Your task to perform on an android device: show emergency info Image 0: 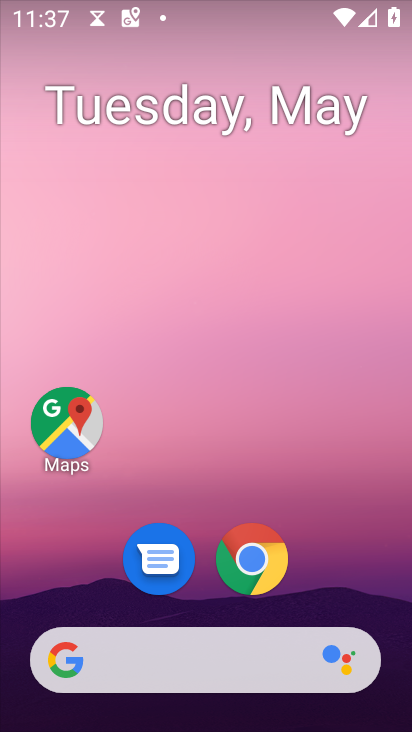
Step 0: drag from (347, 562) to (399, 5)
Your task to perform on an android device: show emergency info Image 1: 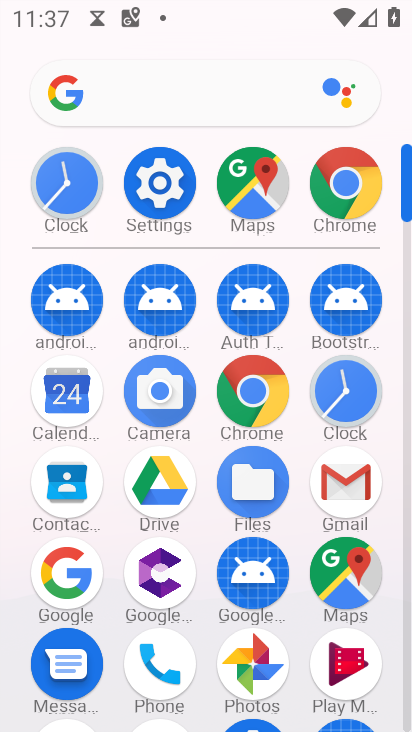
Step 1: click (160, 202)
Your task to perform on an android device: show emergency info Image 2: 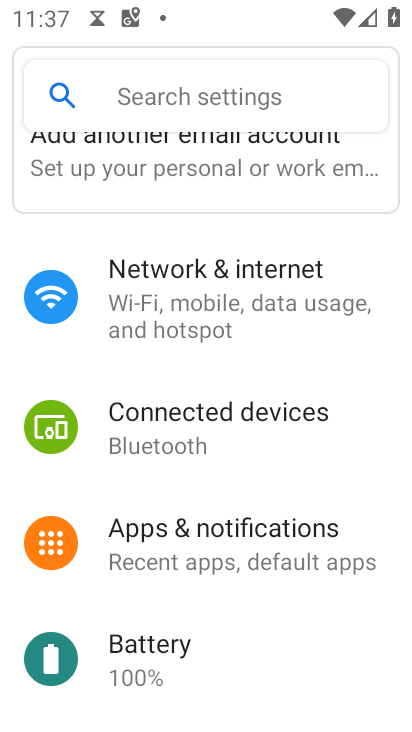
Step 2: drag from (205, 637) to (247, 120)
Your task to perform on an android device: show emergency info Image 3: 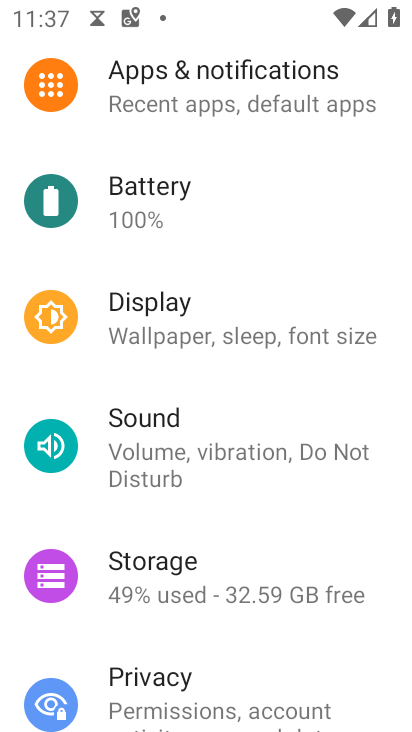
Step 3: drag from (223, 573) to (262, 17)
Your task to perform on an android device: show emergency info Image 4: 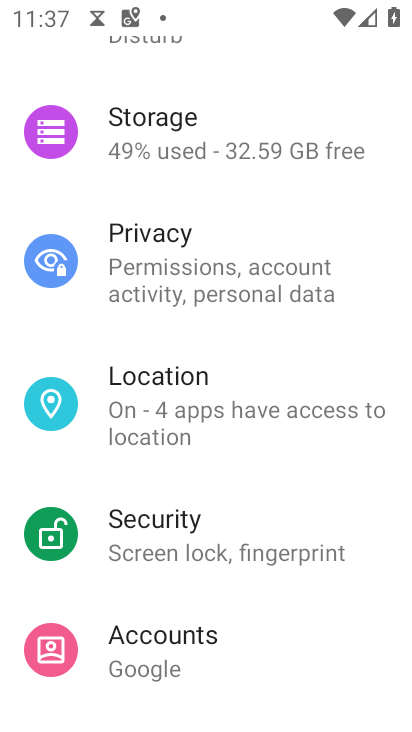
Step 4: drag from (251, 600) to (286, 135)
Your task to perform on an android device: show emergency info Image 5: 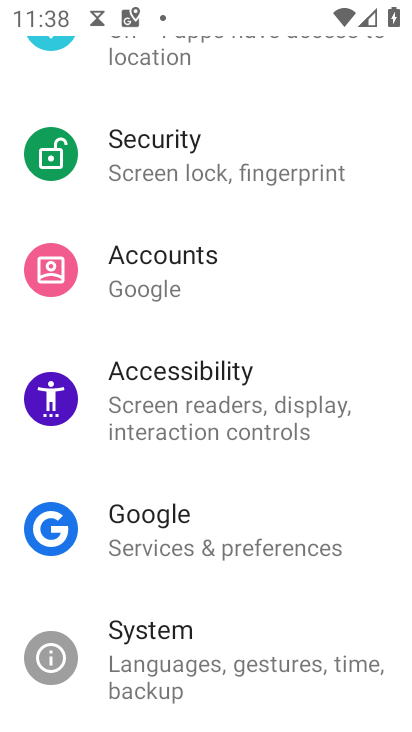
Step 5: drag from (227, 661) to (310, 84)
Your task to perform on an android device: show emergency info Image 6: 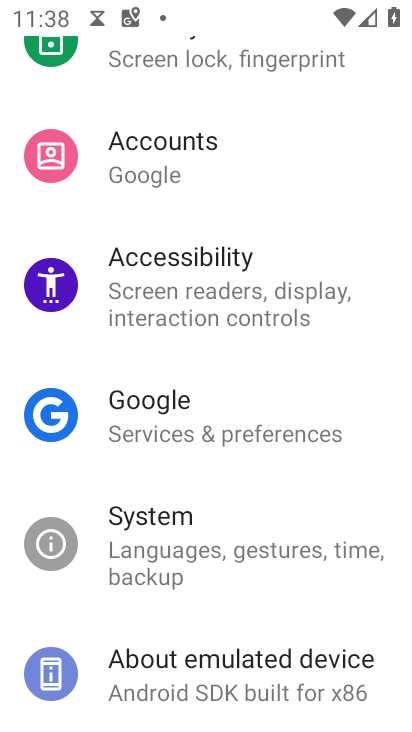
Step 6: drag from (248, 618) to (336, 112)
Your task to perform on an android device: show emergency info Image 7: 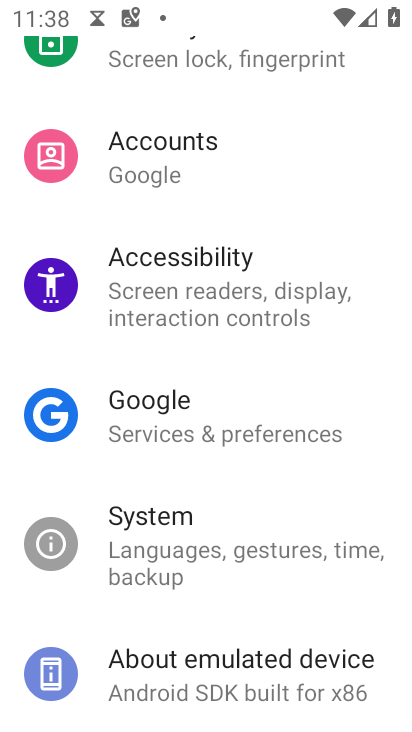
Step 7: click (227, 694)
Your task to perform on an android device: show emergency info Image 8: 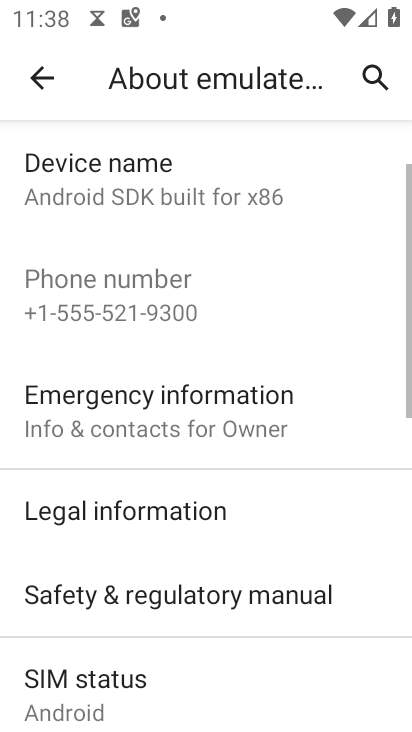
Step 8: click (101, 416)
Your task to perform on an android device: show emergency info Image 9: 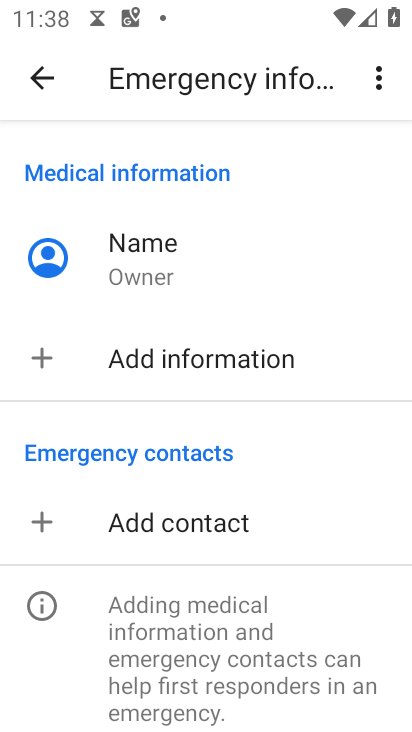
Step 9: task complete